Your task to perform on an android device: Open Youtube and go to the subscriptions tab Image 0: 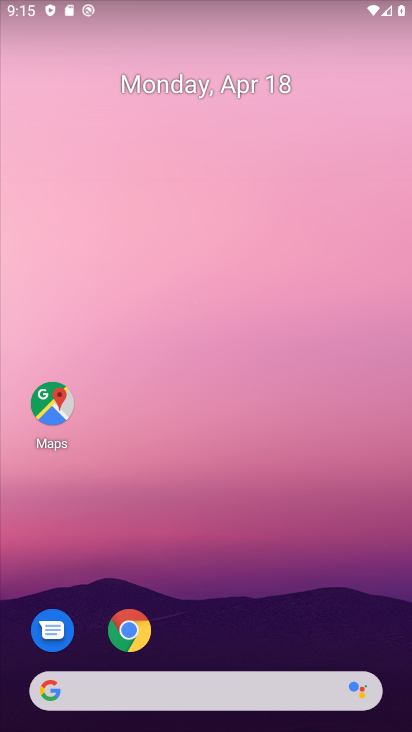
Step 0: drag from (206, 490) to (216, 167)
Your task to perform on an android device: Open Youtube and go to the subscriptions tab Image 1: 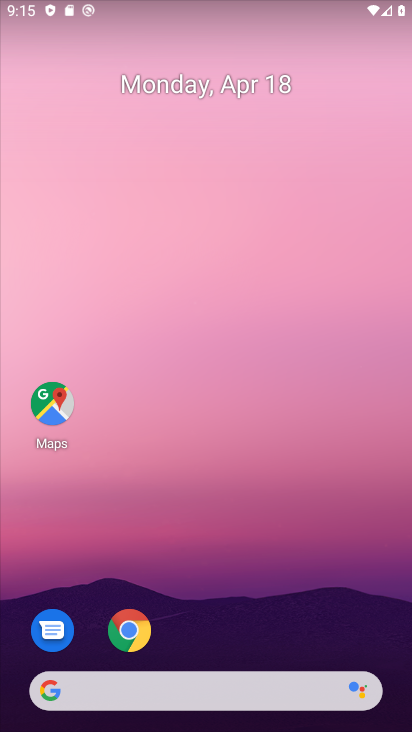
Step 1: drag from (215, 596) to (238, 178)
Your task to perform on an android device: Open Youtube and go to the subscriptions tab Image 2: 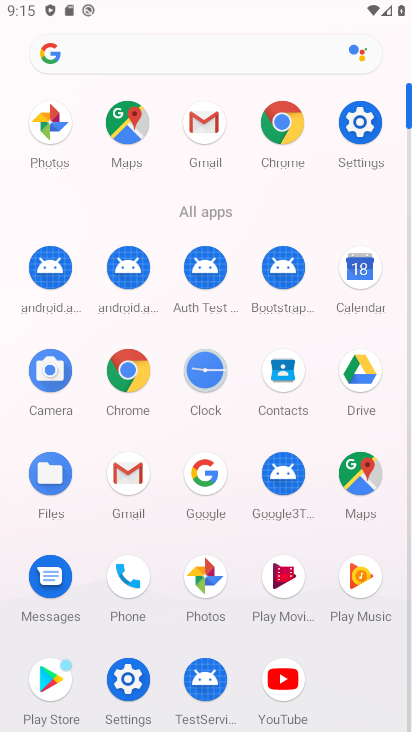
Step 2: click (283, 678)
Your task to perform on an android device: Open Youtube and go to the subscriptions tab Image 3: 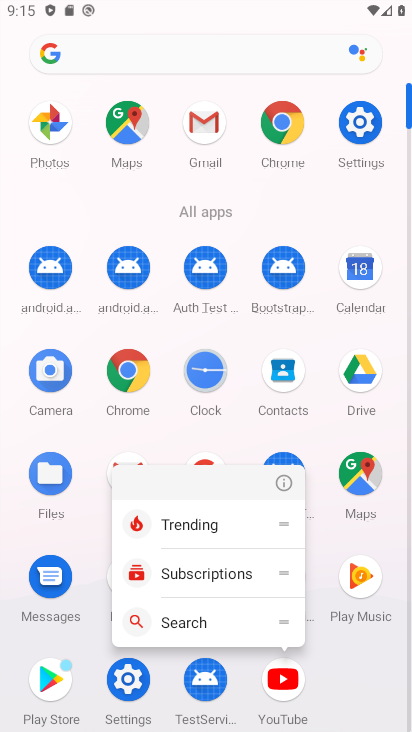
Step 3: click (194, 575)
Your task to perform on an android device: Open Youtube and go to the subscriptions tab Image 4: 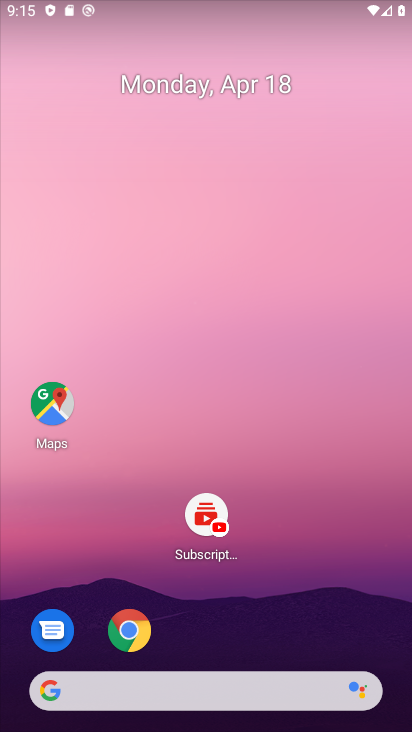
Step 4: drag from (177, 602) to (205, 213)
Your task to perform on an android device: Open Youtube and go to the subscriptions tab Image 5: 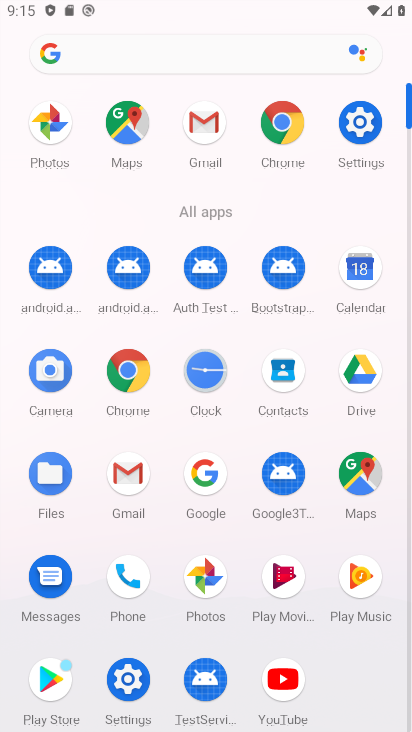
Step 5: click (289, 680)
Your task to perform on an android device: Open Youtube and go to the subscriptions tab Image 6: 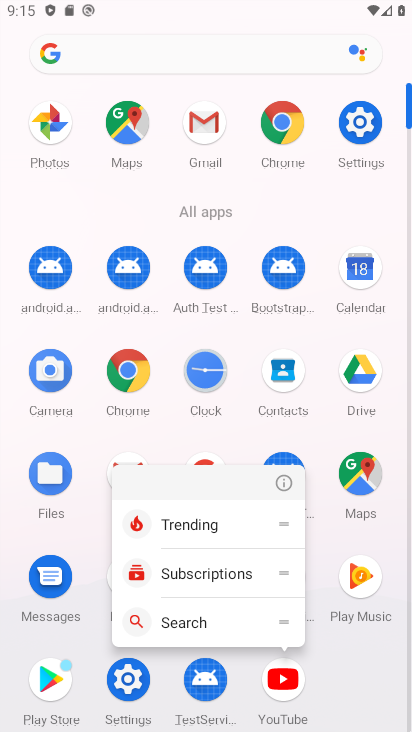
Step 6: click (289, 678)
Your task to perform on an android device: Open Youtube and go to the subscriptions tab Image 7: 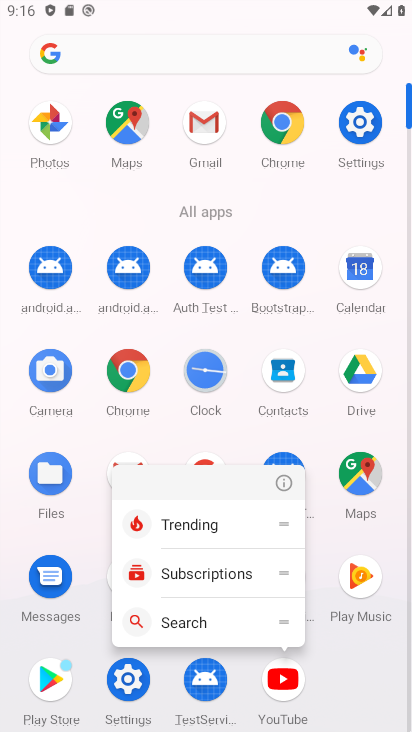
Step 7: click (282, 685)
Your task to perform on an android device: Open Youtube and go to the subscriptions tab Image 8: 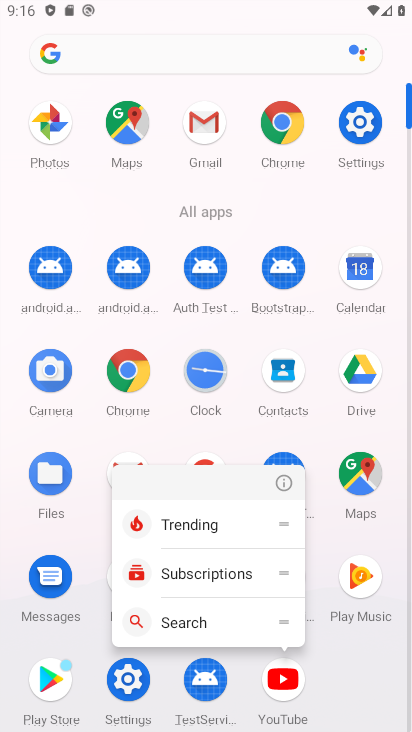
Step 8: click (277, 682)
Your task to perform on an android device: Open Youtube and go to the subscriptions tab Image 9: 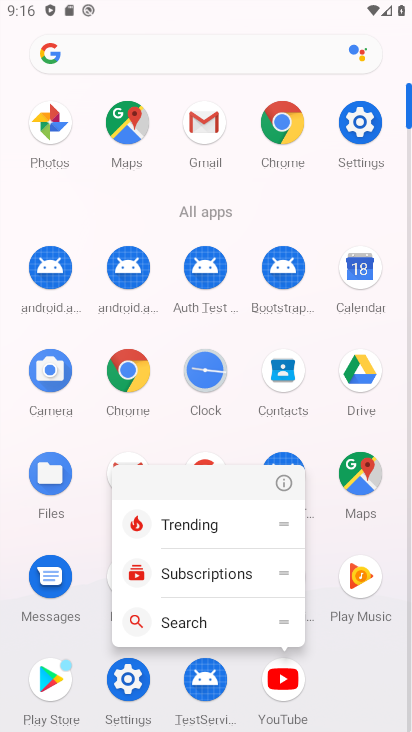
Step 9: click (277, 682)
Your task to perform on an android device: Open Youtube and go to the subscriptions tab Image 10: 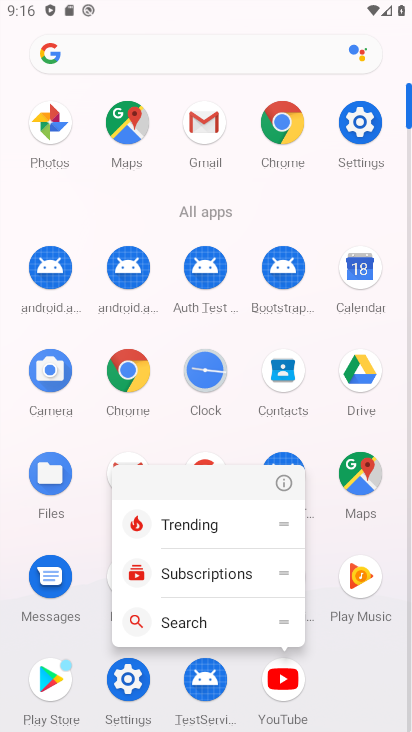
Step 10: click (285, 682)
Your task to perform on an android device: Open Youtube and go to the subscriptions tab Image 11: 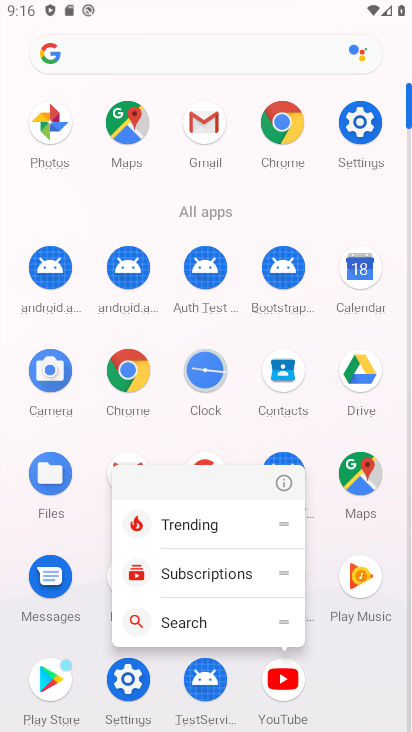
Step 11: click (284, 679)
Your task to perform on an android device: Open Youtube and go to the subscriptions tab Image 12: 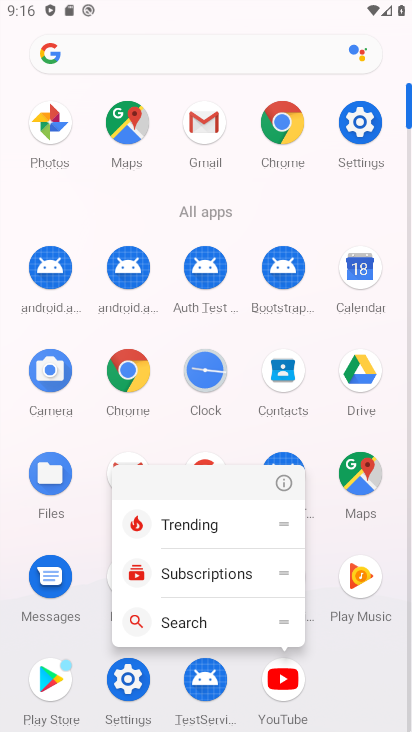
Step 12: click (283, 676)
Your task to perform on an android device: Open Youtube and go to the subscriptions tab Image 13: 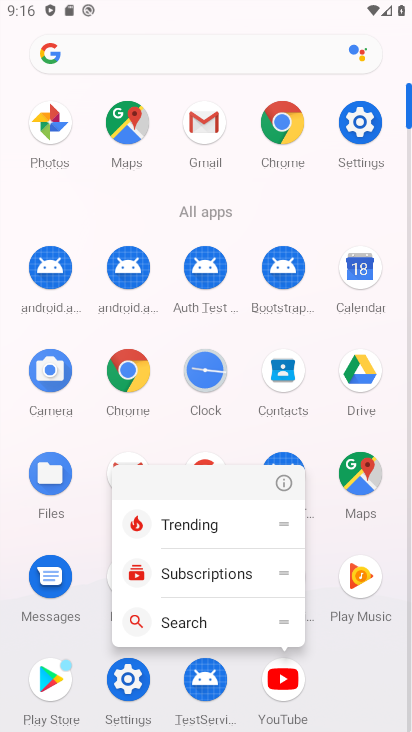
Step 13: click (286, 686)
Your task to perform on an android device: Open Youtube and go to the subscriptions tab Image 14: 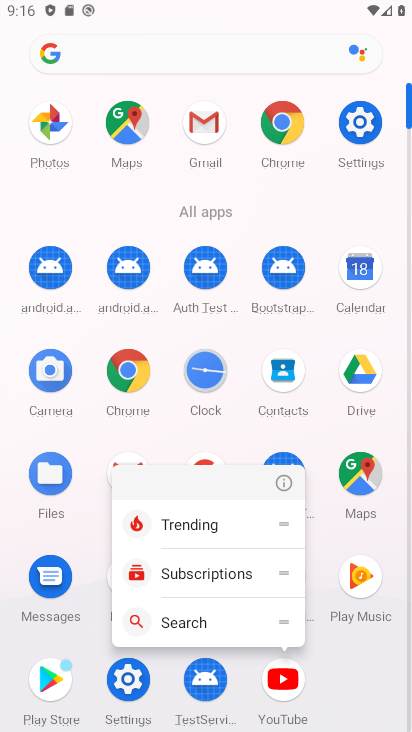
Step 14: click (287, 685)
Your task to perform on an android device: Open Youtube and go to the subscriptions tab Image 15: 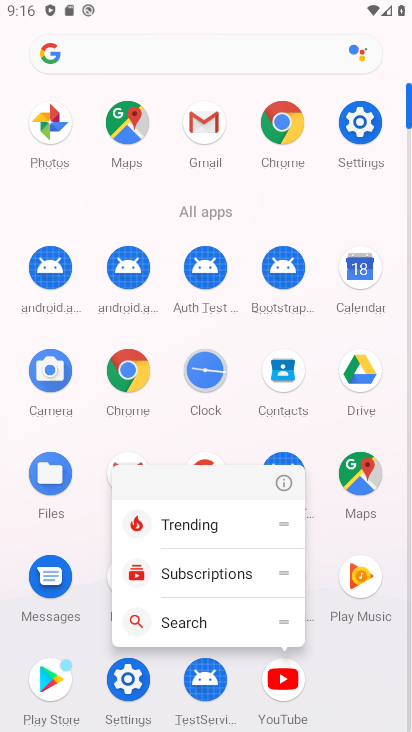
Step 15: click (282, 682)
Your task to perform on an android device: Open Youtube and go to the subscriptions tab Image 16: 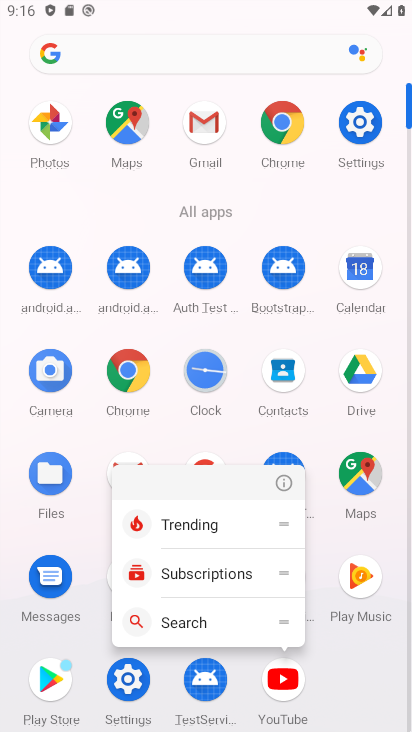
Step 16: click (282, 682)
Your task to perform on an android device: Open Youtube and go to the subscriptions tab Image 17: 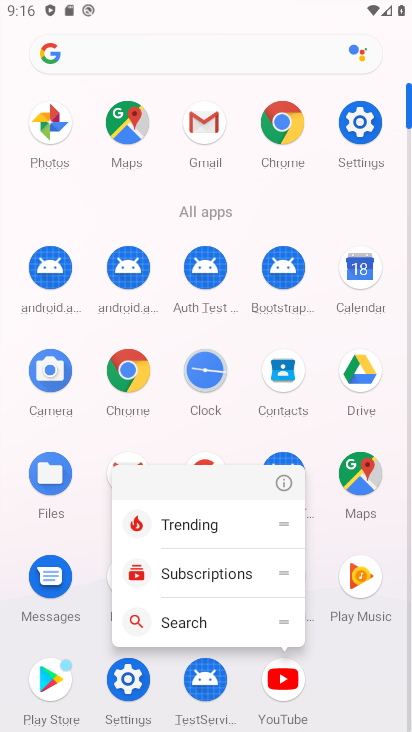
Step 17: click (282, 682)
Your task to perform on an android device: Open Youtube and go to the subscriptions tab Image 18: 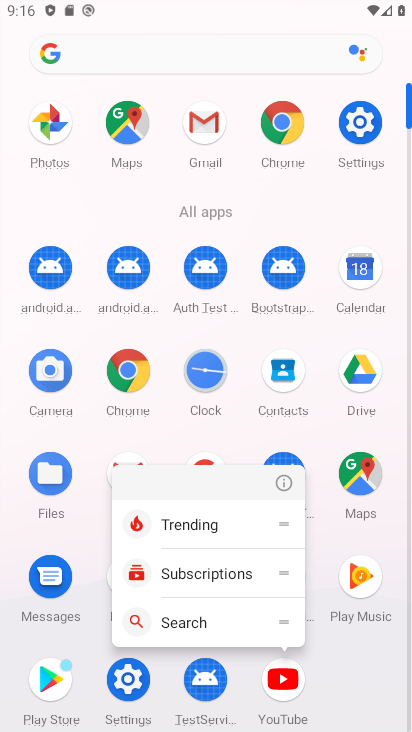
Step 18: click (282, 683)
Your task to perform on an android device: Open Youtube and go to the subscriptions tab Image 19: 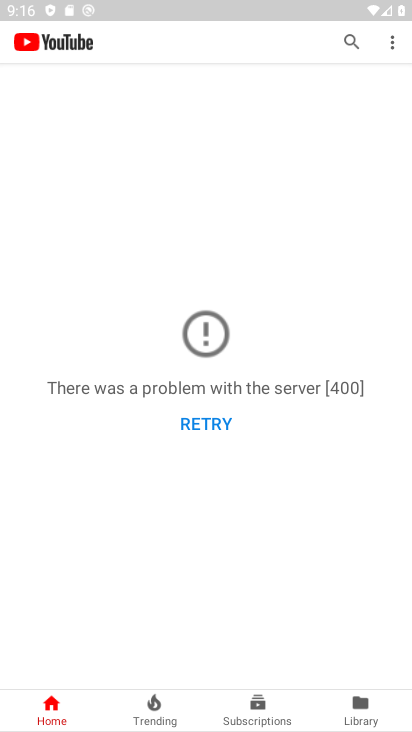
Step 19: click (246, 712)
Your task to perform on an android device: Open Youtube and go to the subscriptions tab Image 20: 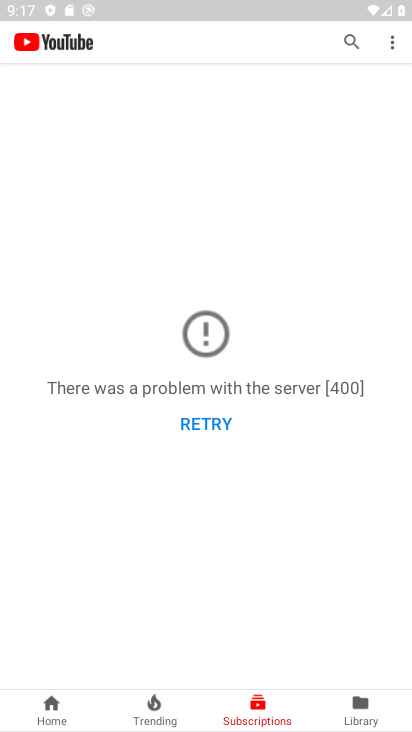
Step 20: task complete